Your task to perform on an android device: check data usage Image 0: 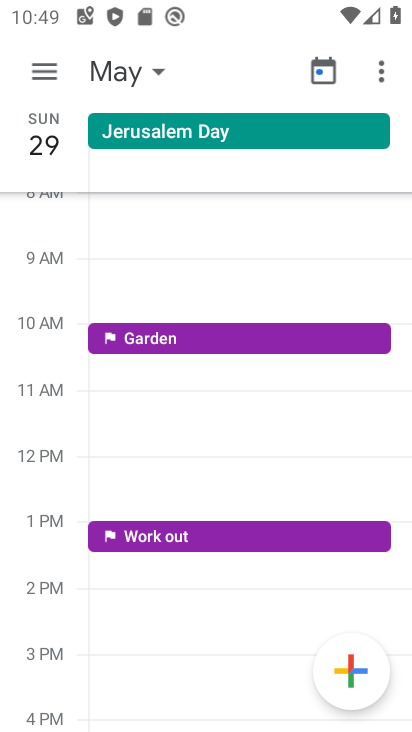
Step 0: press home button
Your task to perform on an android device: check data usage Image 1: 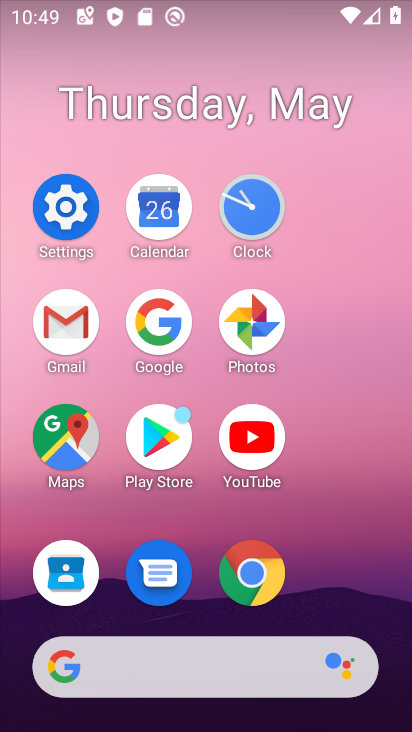
Step 1: click (47, 196)
Your task to perform on an android device: check data usage Image 2: 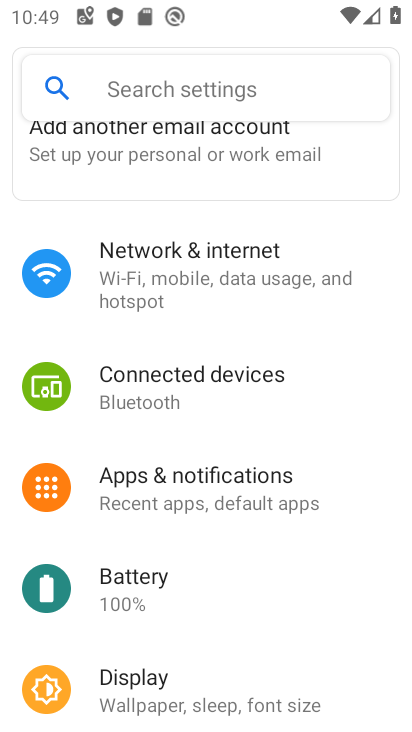
Step 2: click (216, 270)
Your task to perform on an android device: check data usage Image 3: 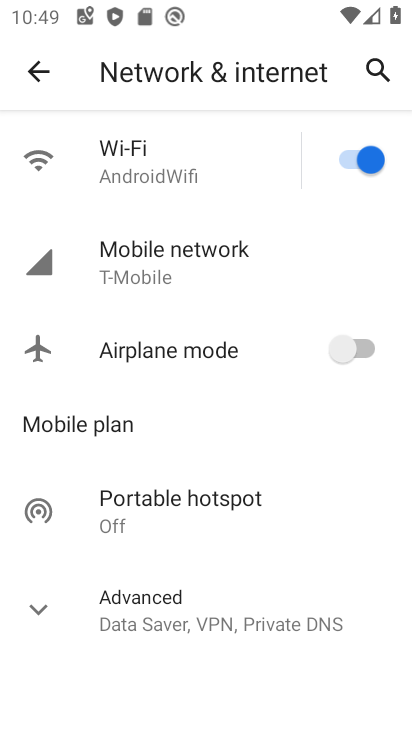
Step 3: click (181, 267)
Your task to perform on an android device: check data usage Image 4: 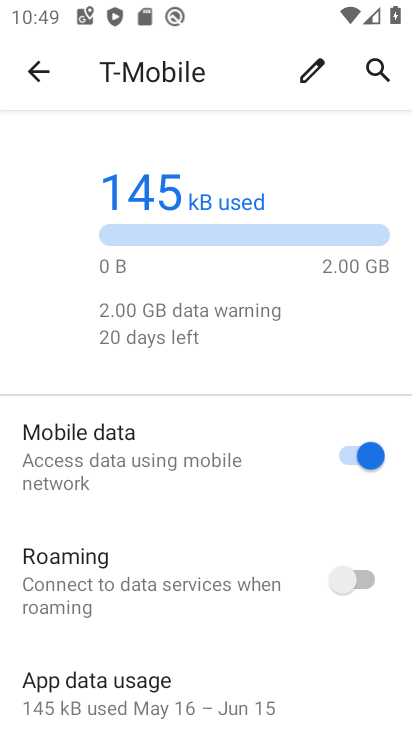
Step 4: task complete